Your task to perform on an android device: What's the weather going to be tomorrow? Image 0: 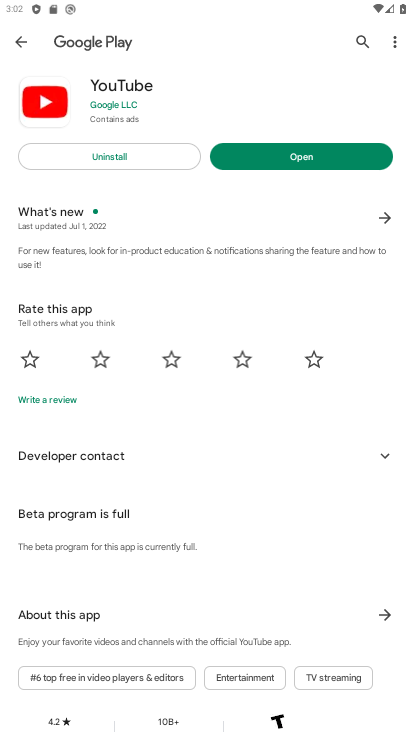
Step 0: press home button
Your task to perform on an android device: What's the weather going to be tomorrow? Image 1: 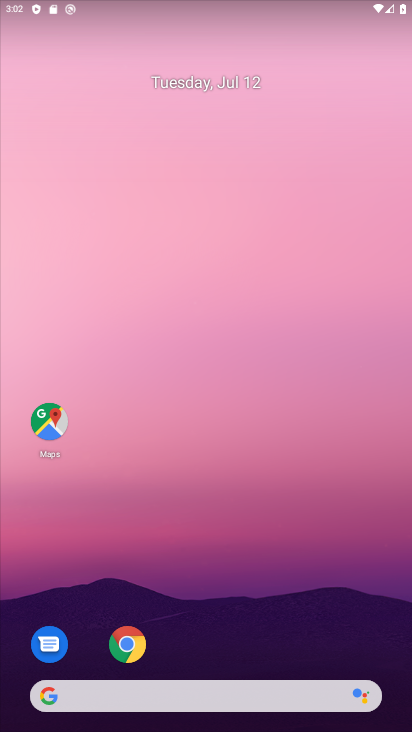
Step 1: drag from (325, 613) to (197, 90)
Your task to perform on an android device: What's the weather going to be tomorrow? Image 2: 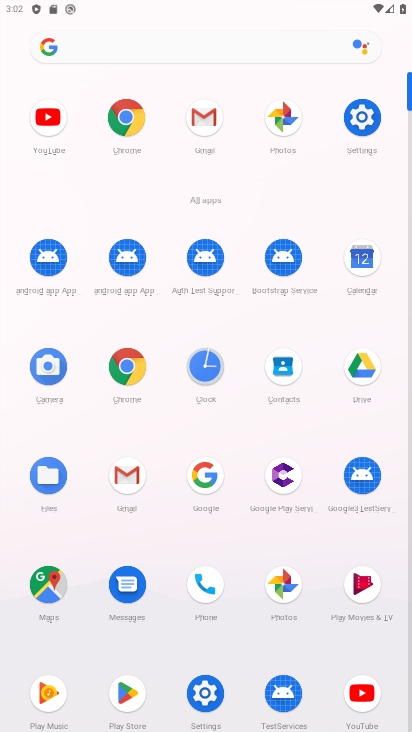
Step 2: click (126, 363)
Your task to perform on an android device: What's the weather going to be tomorrow? Image 3: 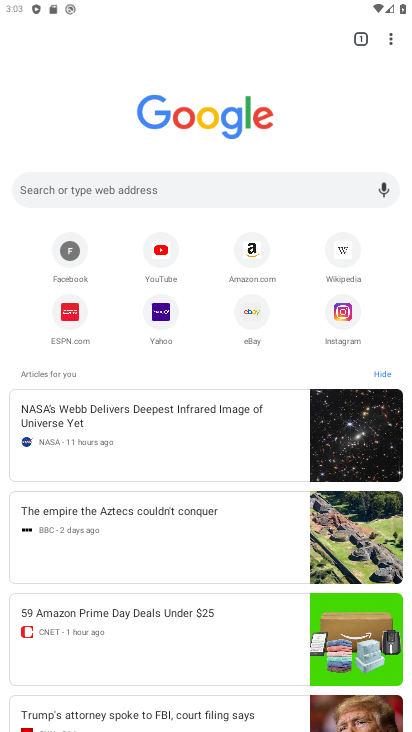
Step 3: click (308, 193)
Your task to perform on an android device: What's the weather going to be tomorrow? Image 4: 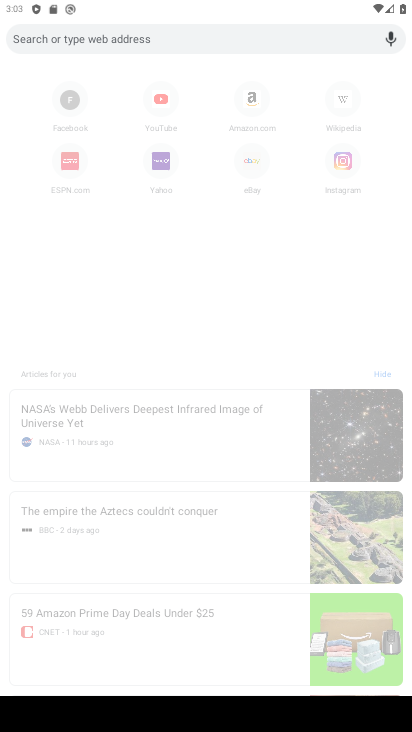
Step 4: type "weather"
Your task to perform on an android device: What's the weather going to be tomorrow? Image 5: 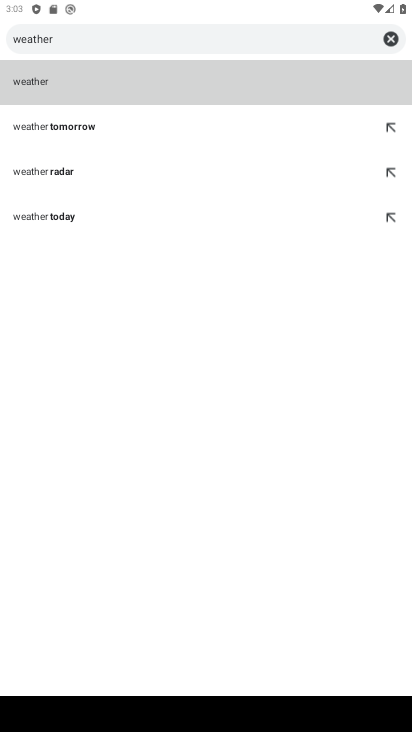
Step 5: click (55, 86)
Your task to perform on an android device: What's the weather going to be tomorrow? Image 6: 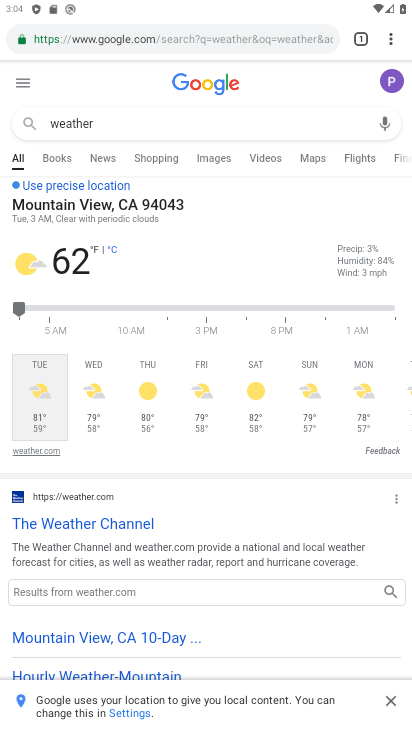
Step 6: click (82, 391)
Your task to perform on an android device: What's the weather going to be tomorrow? Image 7: 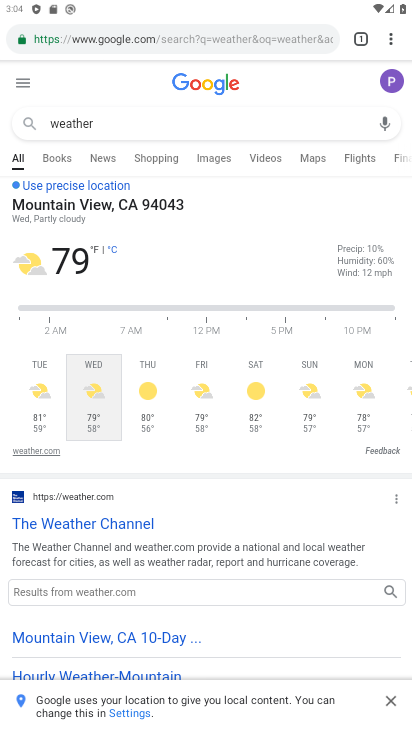
Step 7: task complete